Your task to perform on an android device: Open network settings Image 0: 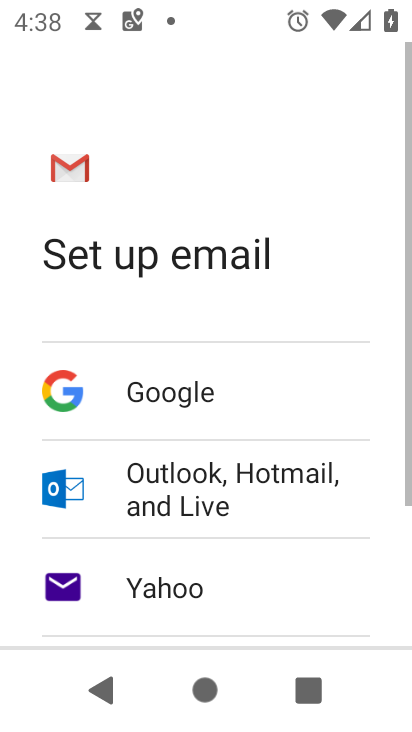
Step 0: press home button
Your task to perform on an android device: Open network settings Image 1: 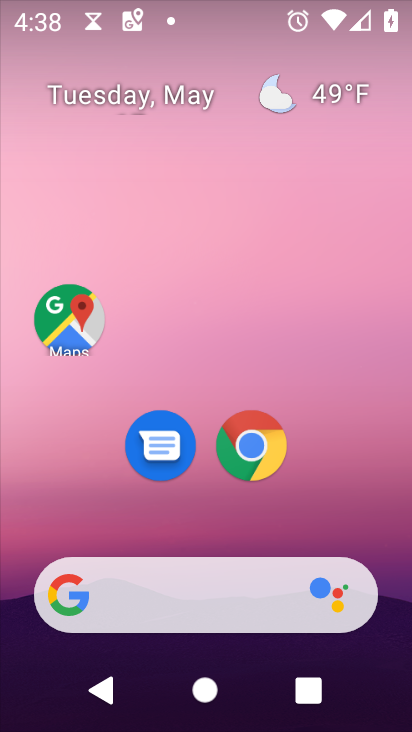
Step 1: drag from (282, 576) to (284, 85)
Your task to perform on an android device: Open network settings Image 2: 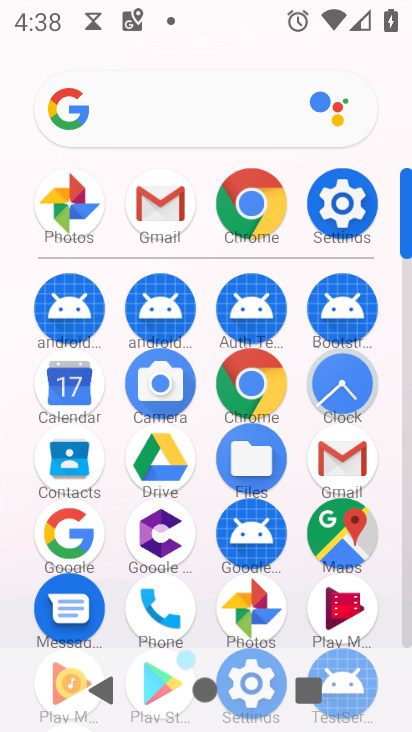
Step 2: click (333, 194)
Your task to perform on an android device: Open network settings Image 3: 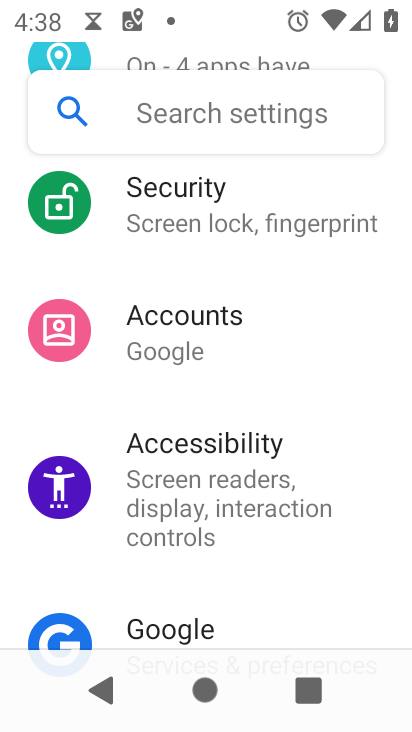
Step 3: drag from (257, 211) to (255, 698)
Your task to perform on an android device: Open network settings Image 4: 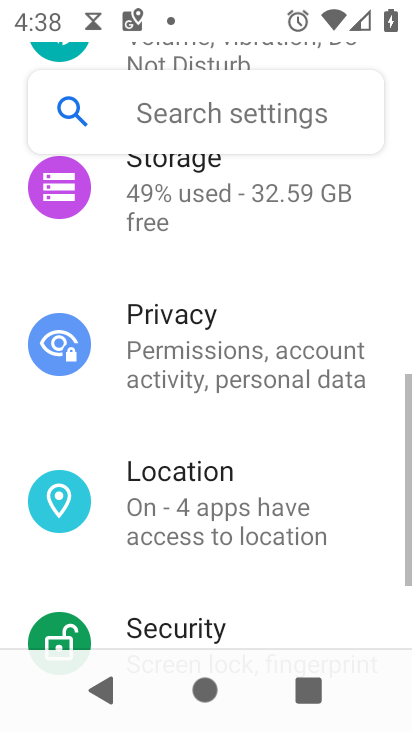
Step 4: drag from (257, 319) to (262, 704)
Your task to perform on an android device: Open network settings Image 5: 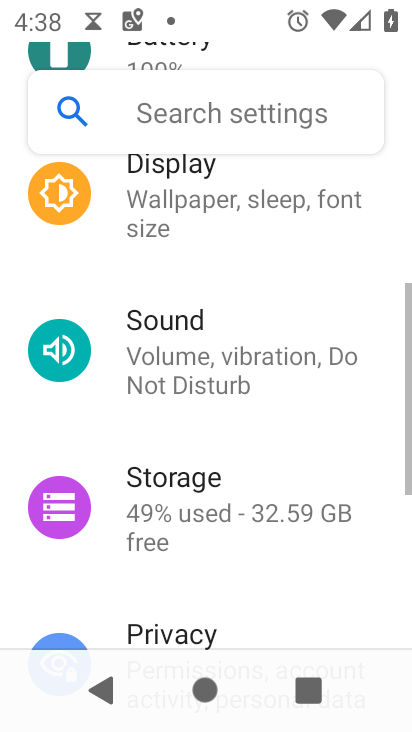
Step 5: drag from (302, 170) to (289, 705)
Your task to perform on an android device: Open network settings Image 6: 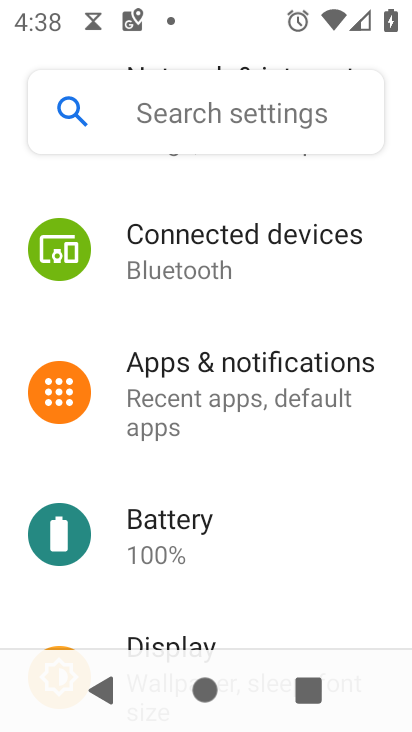
Step 6: drag from (296, 308) to (266, 629)
Your task to perform on an android device: Open network settings Image 7: 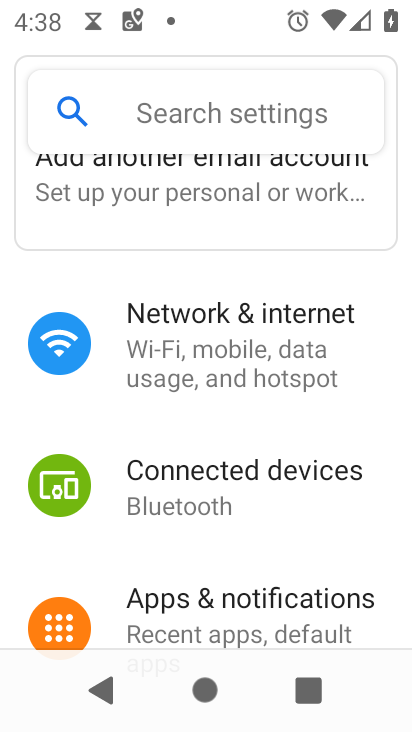
Step 7: click (244, 339)
Your task to perform on an android device: Open network settings Image 8: 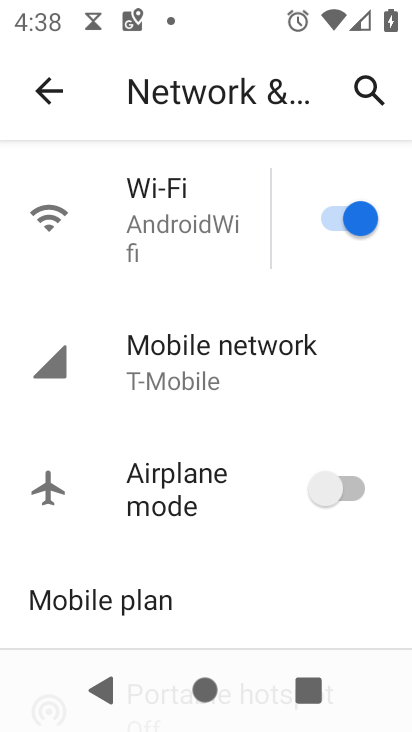
Step 8: click (260, 366)
Your task to perform on an android device: Open network settings Image 9: 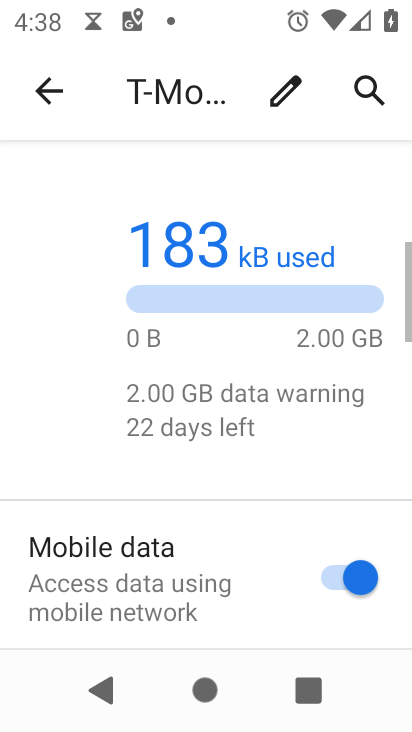
Step 9: task complete